Your task to perform on an android device: empty trash in google photos Image 0: 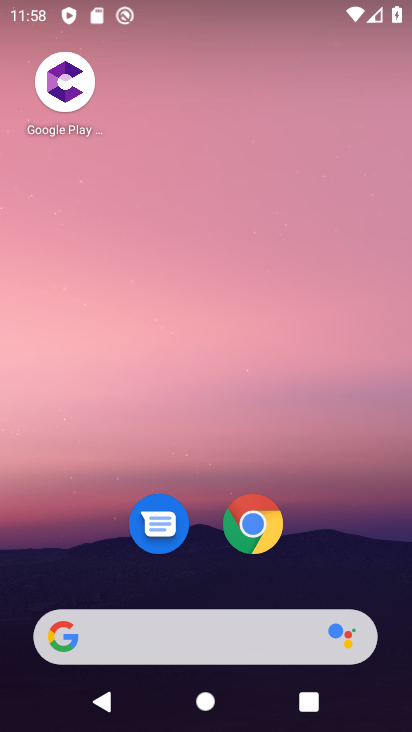
Step 0: drag from (214, 432) to (254, 0)
Your task to perform on an android device: empty trash in google photos Image 1: 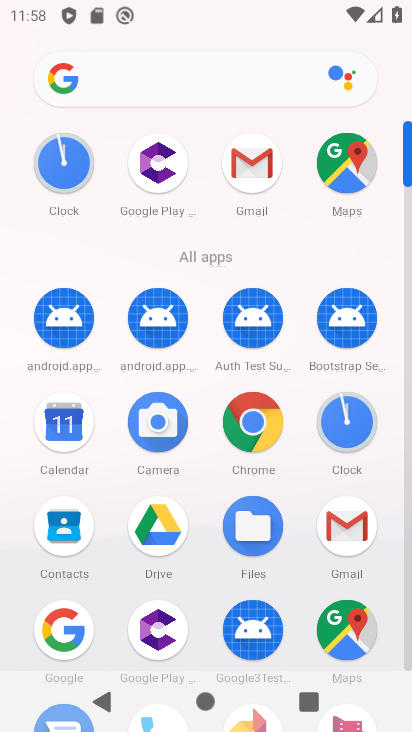
Step 1: drag from (208, 449) to (207, 47)
Your task to perform on an android device: empty trash in google photos Image 2: 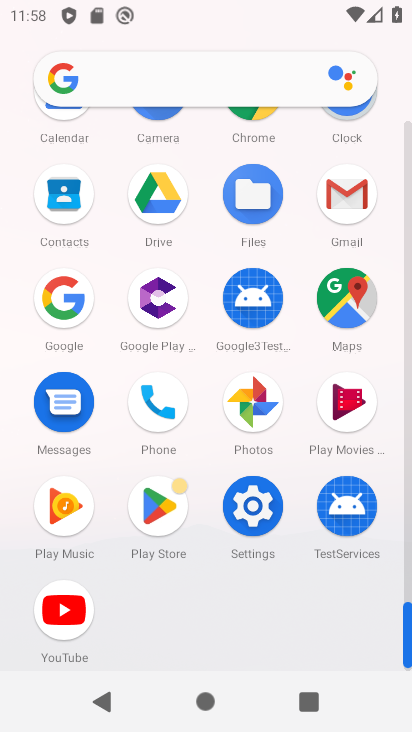
Step 2: click (264, 395)
Your task to perform on an android device: empty trash in google photos Image 3: 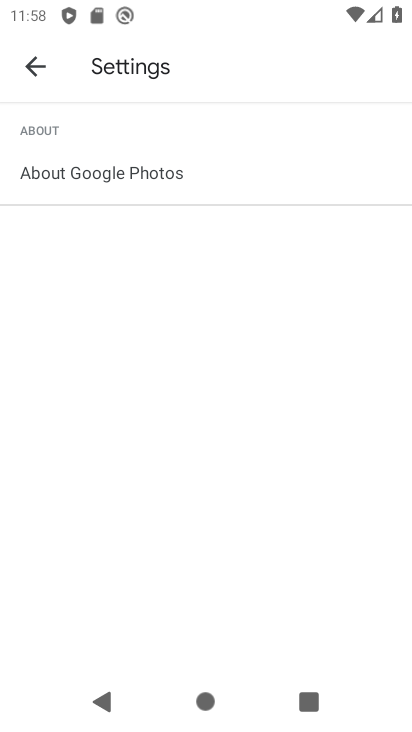
Step 3: click (39, 74)
Your task to perform on an android device: empty trash in google photos Image 4: 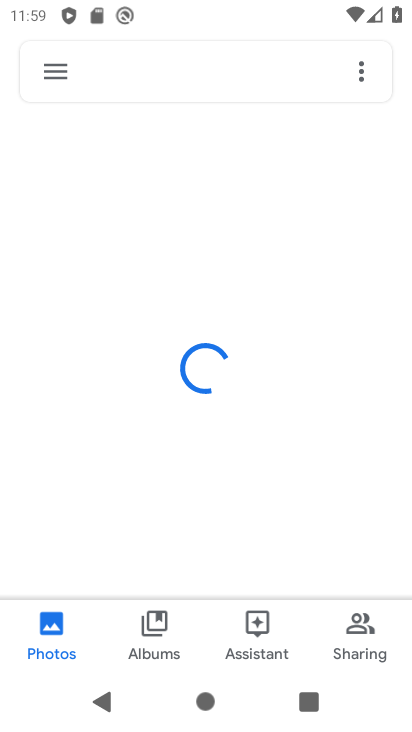
Step 4: click (59, 66)
Your task to perform on an android device: empty trash in google photos Image 5: 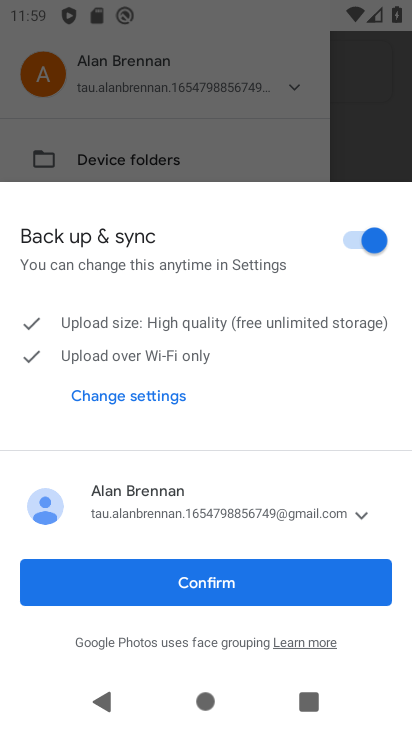
Step 5: click (254, 582)
Your task to perform on an android device: empty trash in google photos Image 6: 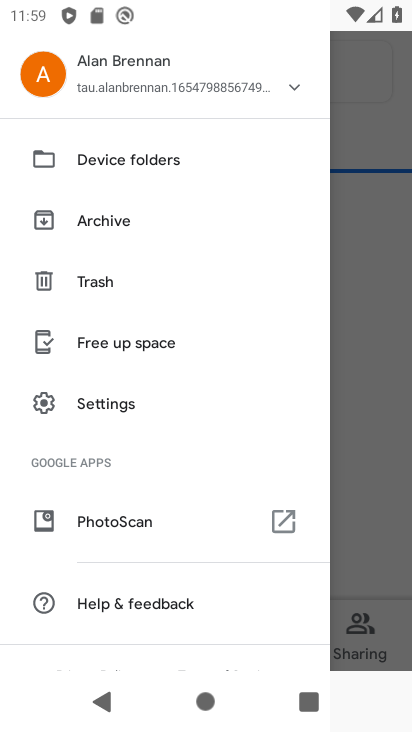
Step 6: click (84, 279)
Your task to perform on an android device: empty trash in google photos Image 7: 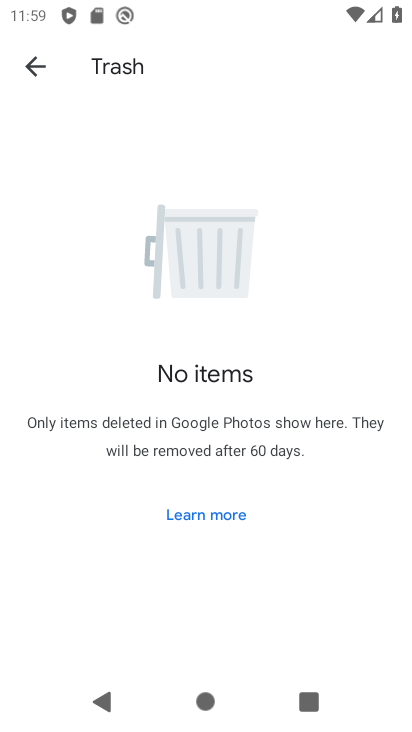
Step 7: task complete